Your task to perform on an android device: What's the weather? Image 0: 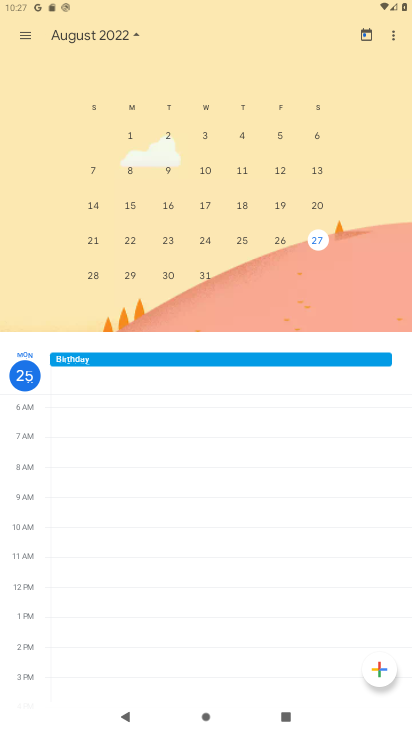
Step 0: press home button
Your task to perform on an android device: What's the weather? Image 1: 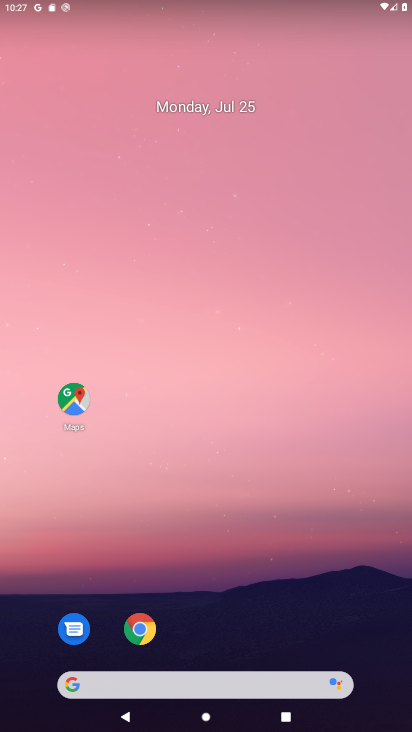
Step 1: click (151, 692)
Your task to perform on an android device: What's the weather? Image 2: 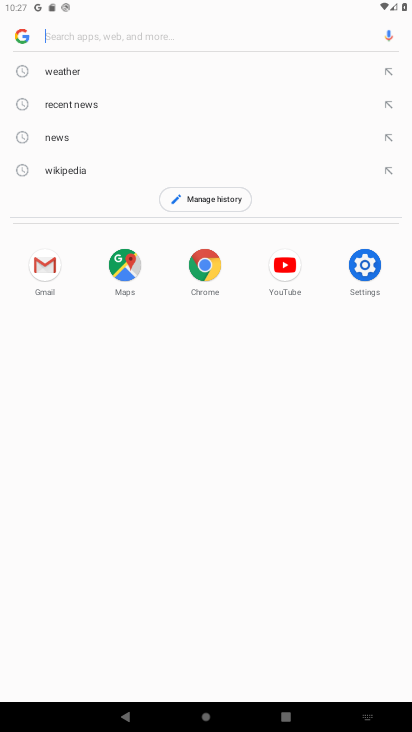
Step 2: click (94, 74)
Your task to perform on an android device: What's the weather? Image 3: 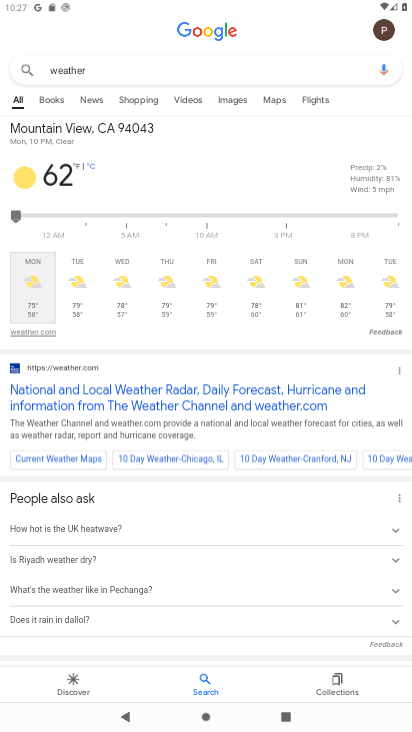
Step 3: task complete